Your task to perform on an android device: Turn off the flashlight Image 0: 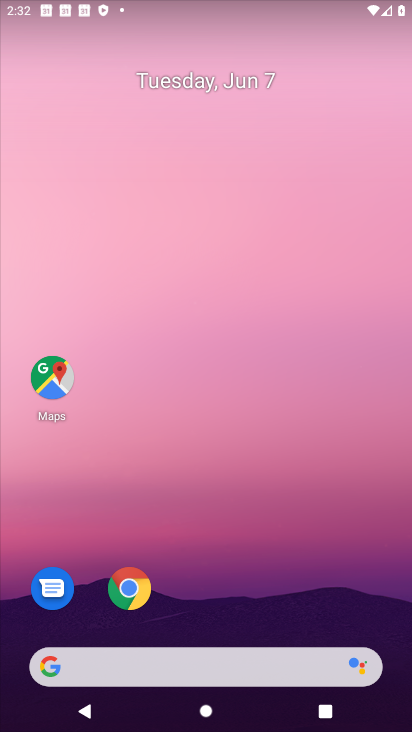
Step 0: drag from (324, 589) to (221, 191)
Your task to perform on an android device: Turn off the flashlight Image 1: 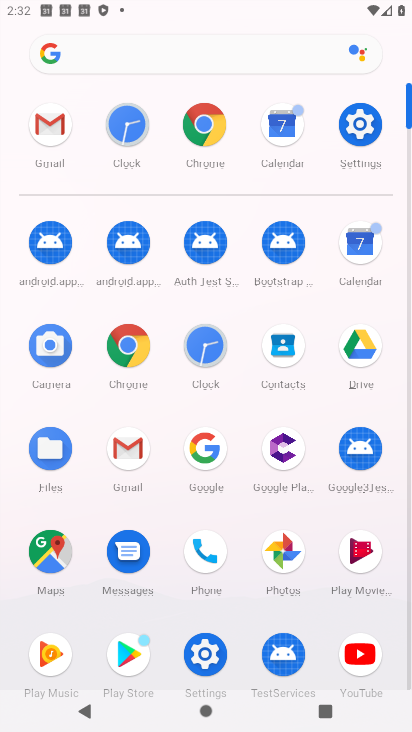
Step 1: click (333, 142)
Your task to perform on an android device: Turn off the flashlight Image 2: 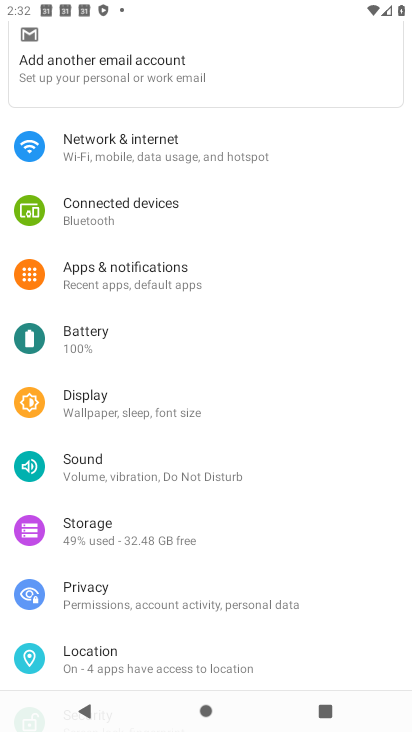
Step 2: task complete